Your task to perform on an android device: Show me productivity apps on the Play Store Image 0: 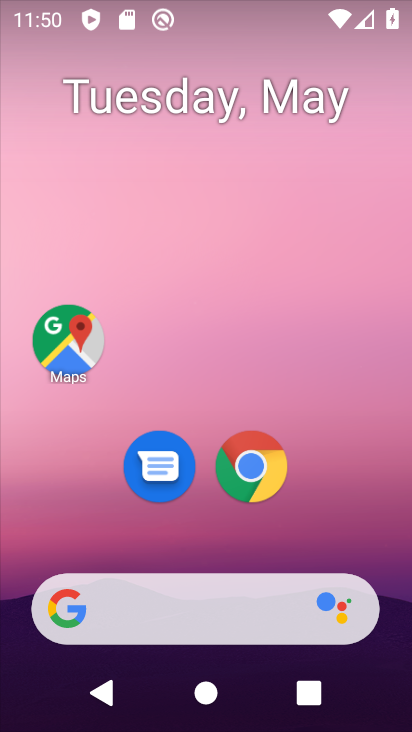
Step 0: drag from (217, 381) to (213, 56)
Your task to perform on an android device: Show me productivity apps on the Play Store Image 1: 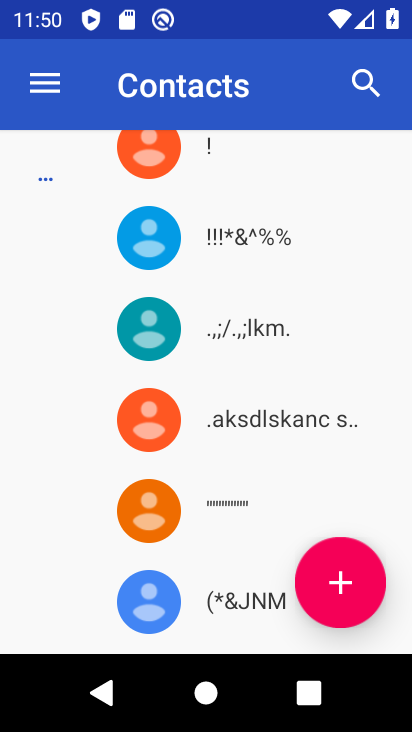
Step 1: press home button
Your task to perform on an android device: Show me productivity apps on the Play Store Image 2: 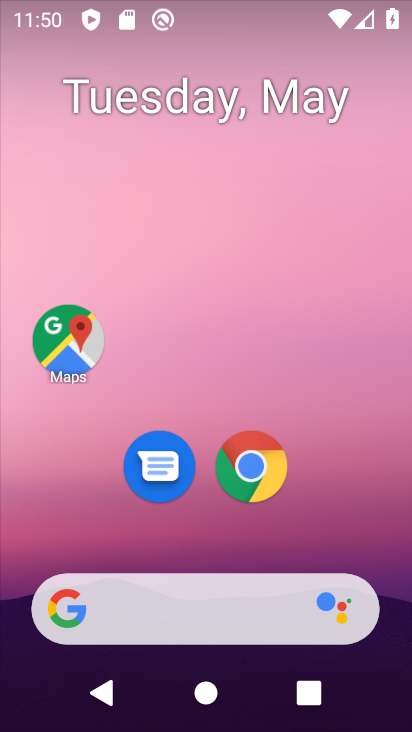
Step 2: drag from (208, 549) to (210, 124)
Your task to perform on an android device: Show me productivity apps on the Play Store Image 3: 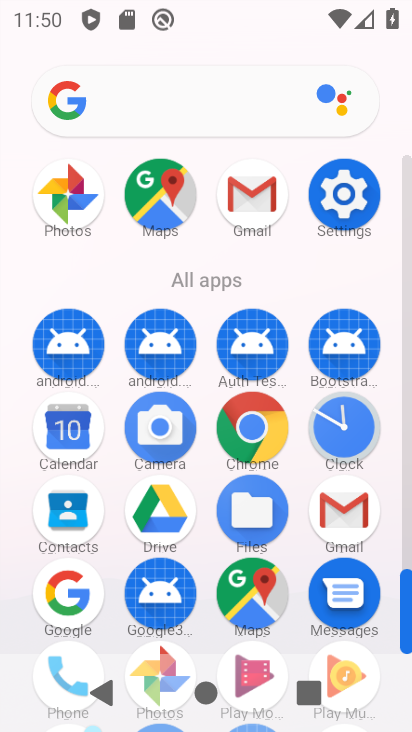
Step 3: drag from (207, 572) to (205, 169)
Your task to perform on an android device: Show me productivity apps on the Play Store Image 4: 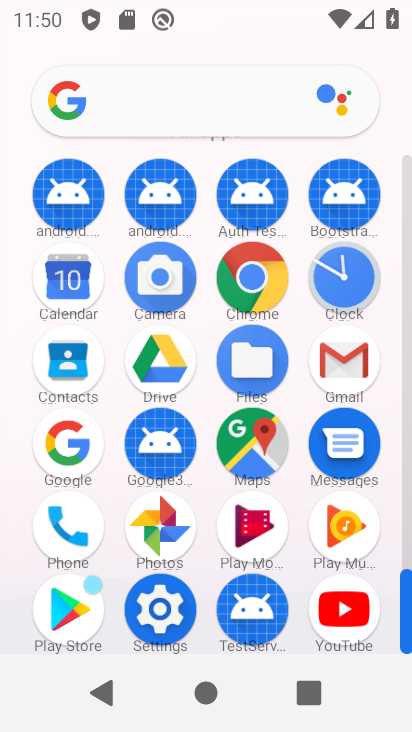
Step 4: click (66, 604)
Your task to perform on an android device: Show me productivity apps on the Play Store Image 5: 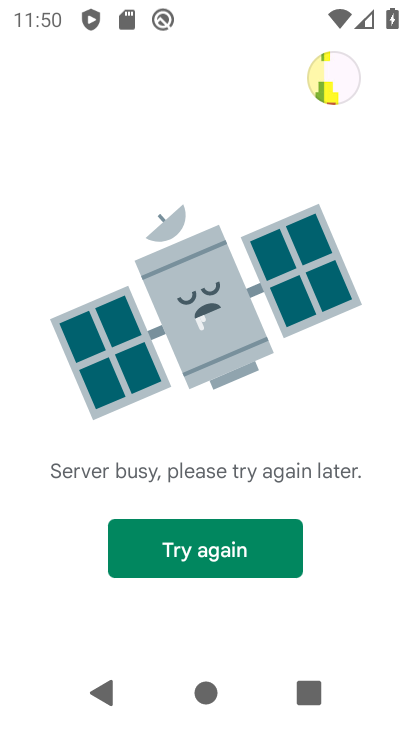
Step 5: click (210, 545)
Your task to perform on an android device: Show me productivity apps on the Play Store Image 6: 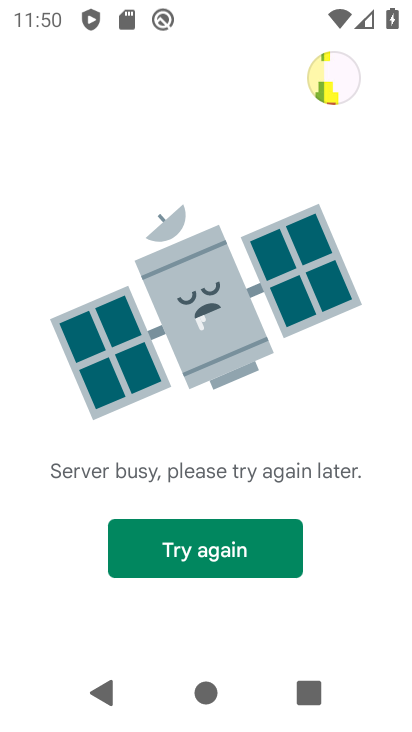
Step 6: task complete